Your task to perform on an android device: add a label to a message in the gmail app Image 0: 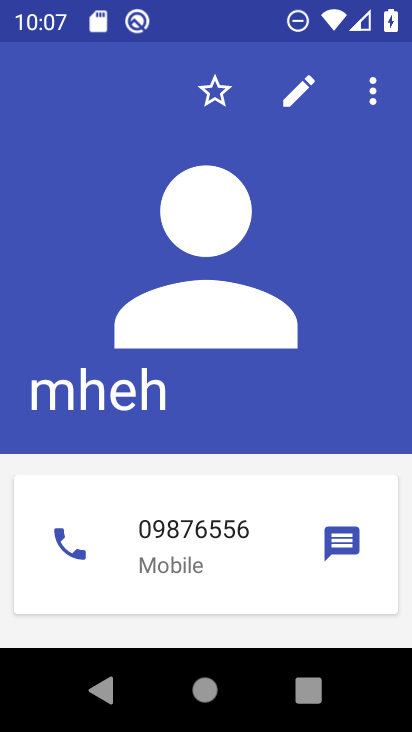
Step 0: press home button
Your task to perform on an android device: add a label to a message in the gmail app Image 1: 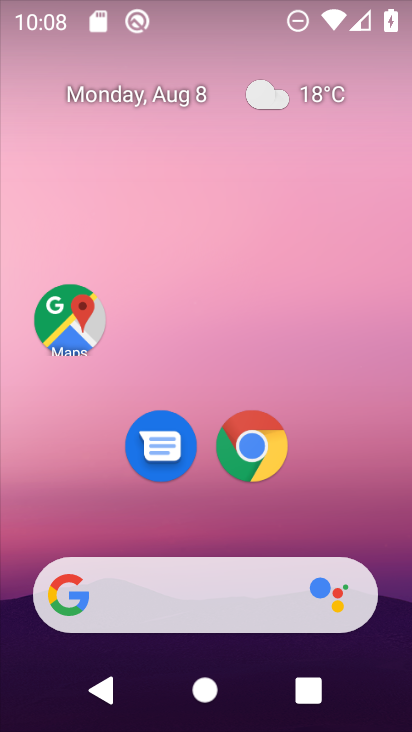
Step 1: drag from (389, 623) to (365, 158)
Your task to perform on an android device: add a label to a message in the gmail app Image 2: 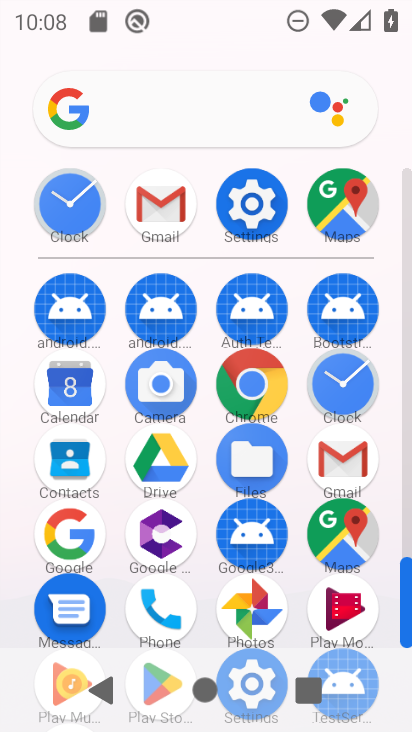
Step 2: click (341, 460)
Your task to perform on an android device: add a label to a message in the gmail app Image 3: 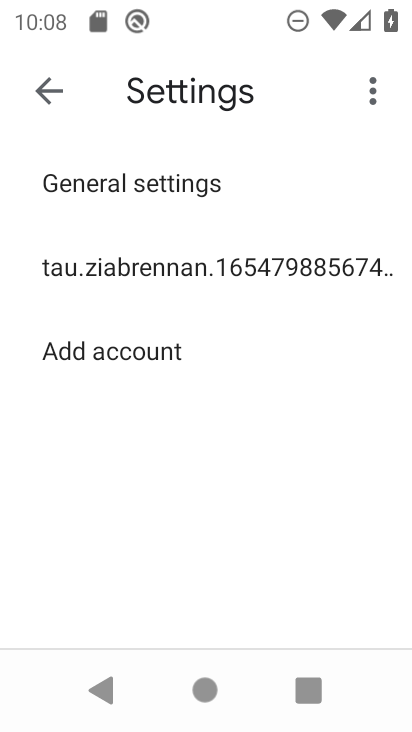
Step 3: press back button
Your task to perform on an android device: add a label to a message in the gmail app Image 4: 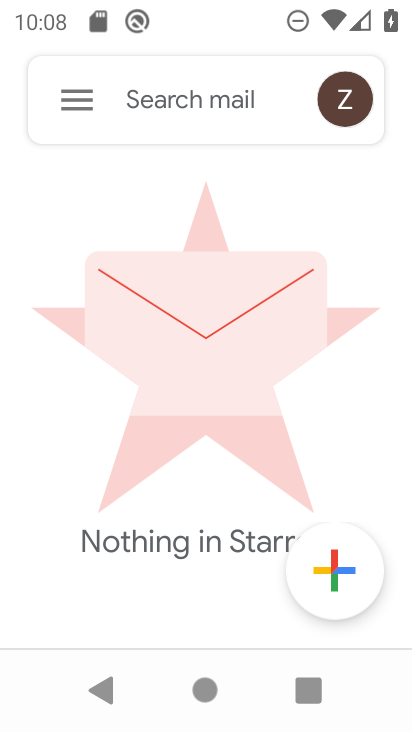
Step 4: click (69, 92)
Your task to perform on an android device: add a label to a message in the gmail app Image 5: 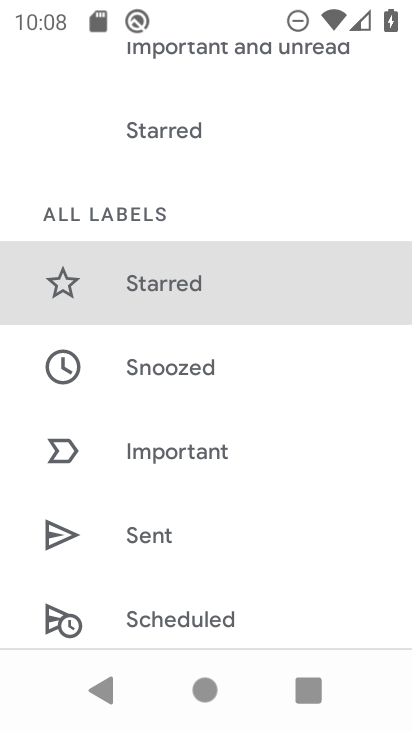
Step 5: drag from (269, 612) to (269, 281)
Your task to perform on an android device: add a label to a message in the gmail app Image 6: 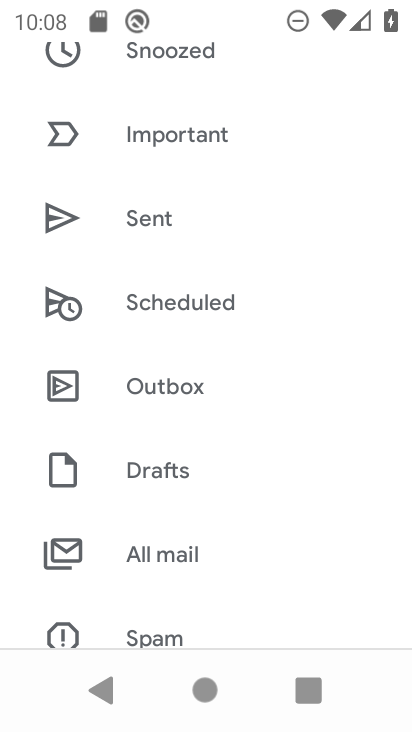
Step 6: drag from (267, 582) to (273, 394)
Your task to perform on an android device: add a label to a message in the gmail app Image 7: 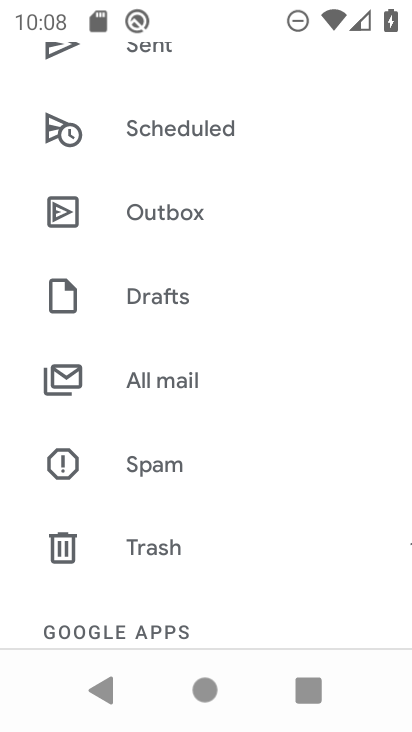
Step 7: click (157, 386)
Your task to perform on an android device: add a label to a message in the gmail app Image 8: 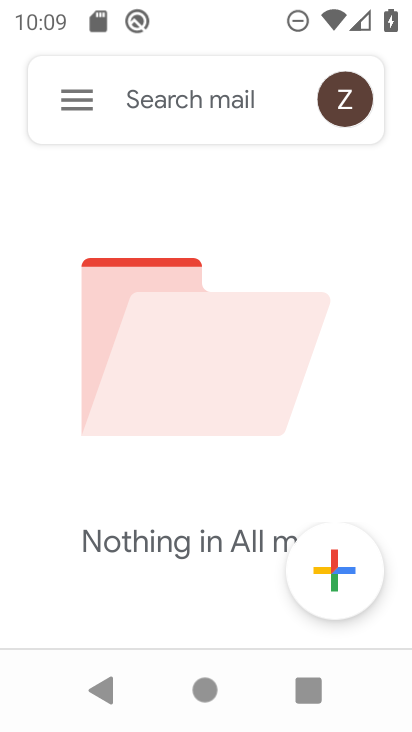
Step 8: task complete